Your task to perform on an android device: Go to Maps Image 0: 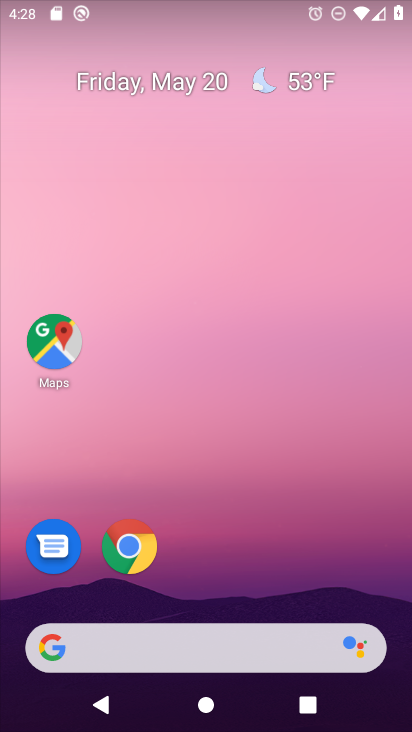
Step 0: click (52, 349)
Your task to perform on an android device: Go to Maps Image 1: 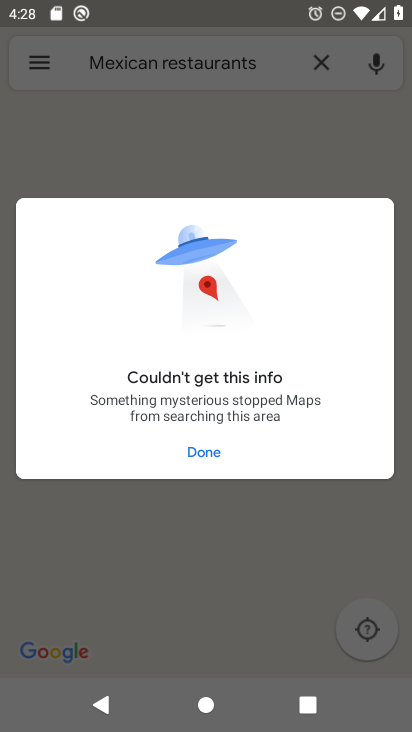
Step 1: task complete